Your task to perform on an android device: turn off picture-in-picture Image 0: 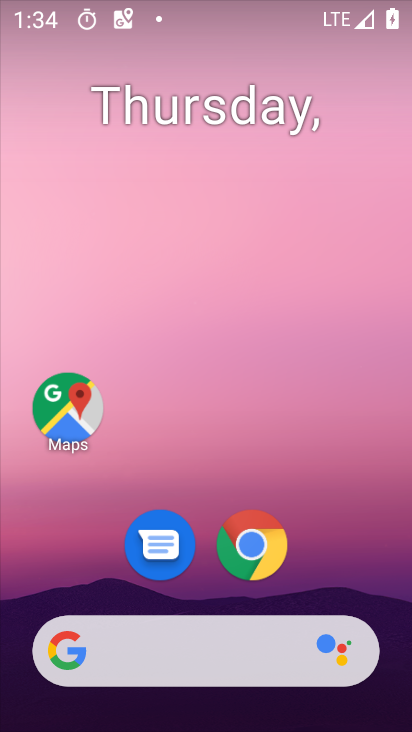
Step 0: drag from (213, 639) to (325, 1)
Your task to perform on an android device: turn off picture-in-picture Image 1: 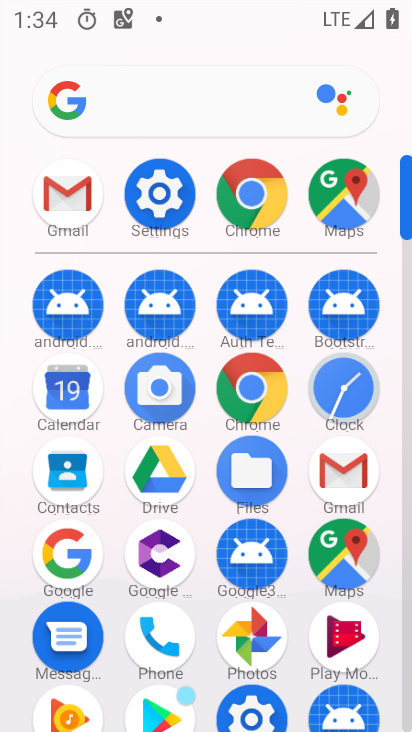
Step 1: click (168, 194)
Your task to perform on an android device: turn off picture-in-picture Image 2: 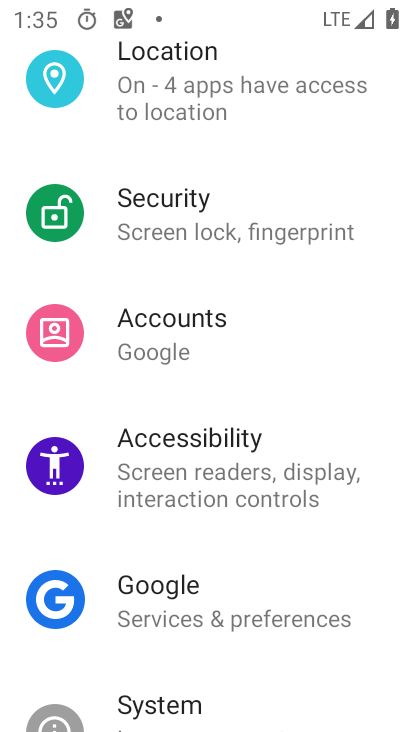
Step 2: drag from (254, 171) to (236, 731)
Your task to perform on an android device: turn off picture-in-picture Image 3: 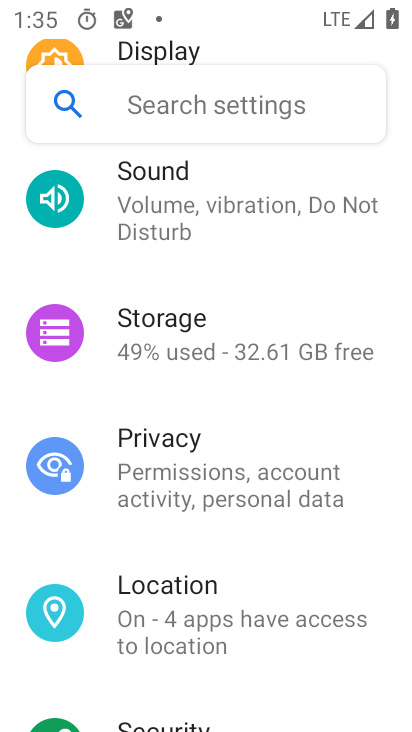
Step 3: drag from (241, 327) to (253, 674)
Your task to perform on an android device: turn off picture-in-picture Image 4: 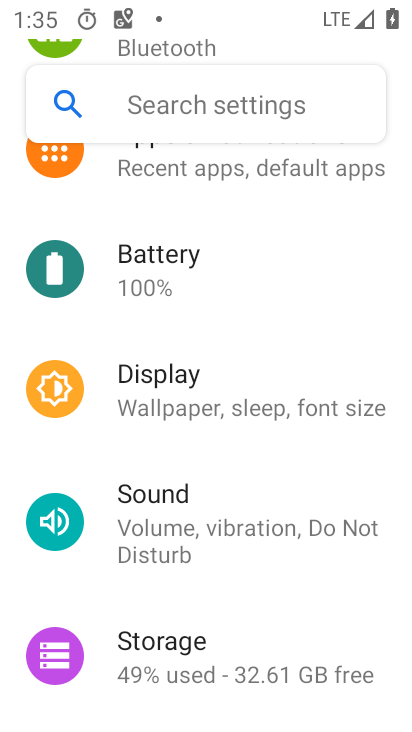
Step 4: drag from (238, 310) to (249, 666)
Your task to perform on an android device: turn off picture-in-picture Image 5: 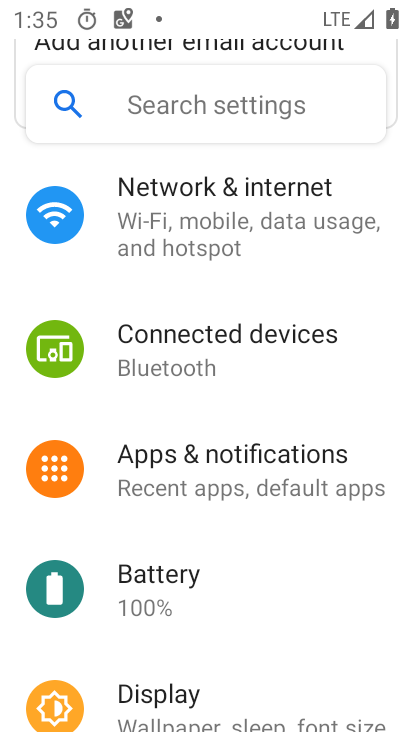
Step 5: click (237, 460)
Your task to perform on an android device: turn off picture-in-picture Image 6: 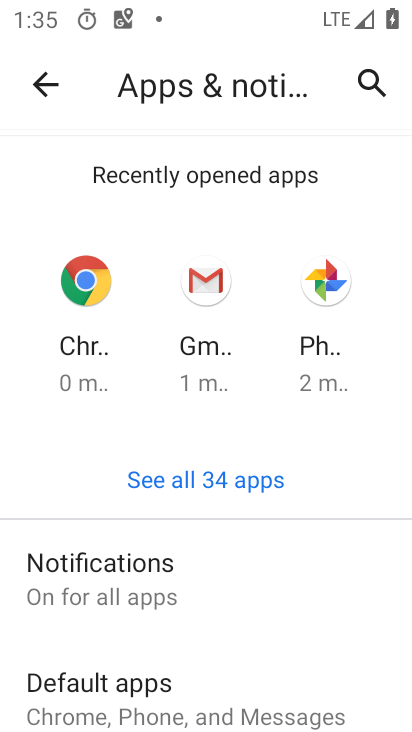
Step 6: drag from (262, 613) to (280, 141)
Your task to perform on an android device: turn off picture-in-picture Image 7: 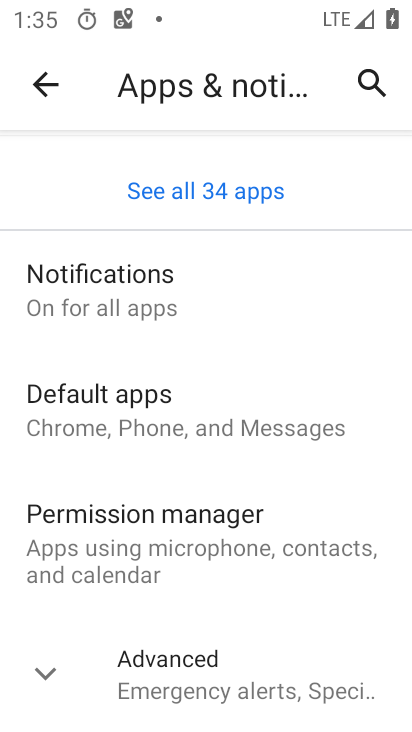
Step 7: click (199, 662)
Your task to perform on an android device: turn off picture-in-picture Image 8: 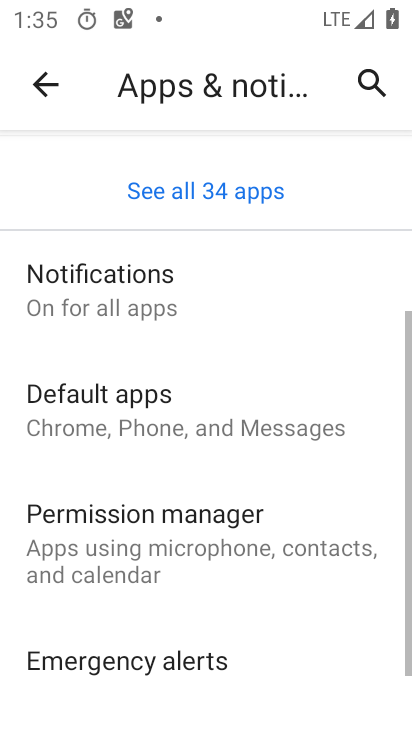
Step 8: drag from (197, 669) to (271, 165)
Your task to perform on an android device: turn off picture-in-picture Image 9: 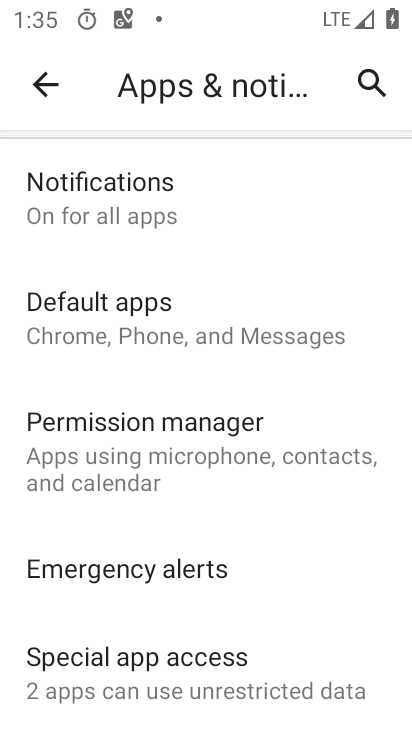
Step 9: click (118, 664)
Your task to perform on an android device: turn off picture-in-picture Image 10: 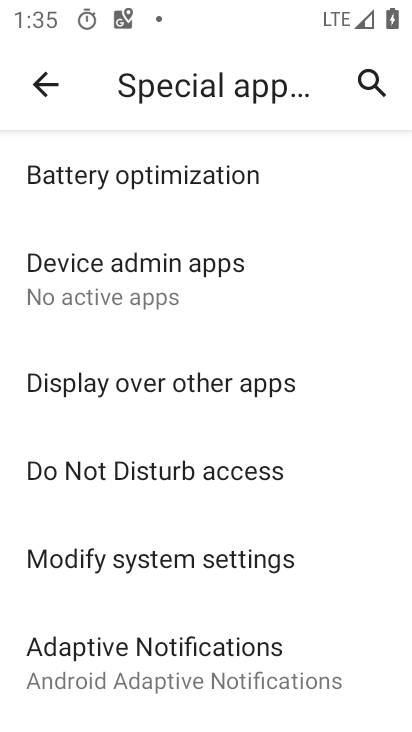
Step 10: drag from (288, 636) to (360, 121)
Your task to perform on an android device: turn off picture-in-picture Image 11: 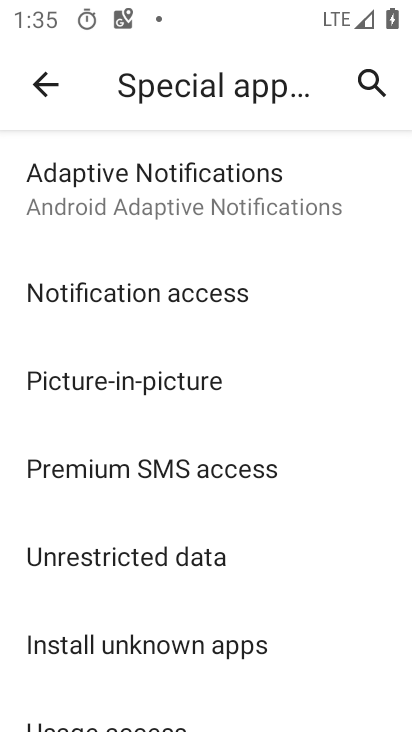
Step 11: click (162, 385)
Your task to perform on an android device: turn off picture-in-picture Image 12: 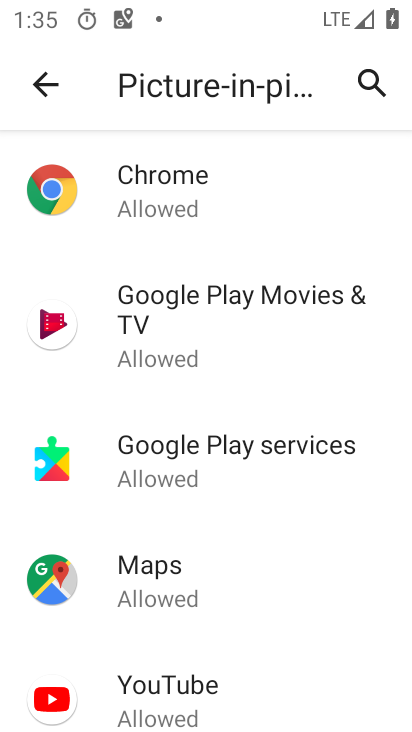
Step 12: click (161, 185)
Your task to perform on an android device: turn off picture-in-picture Image 13: 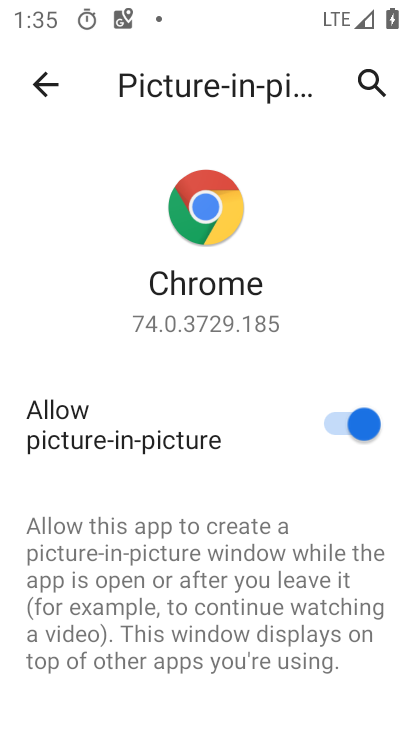
Step 13: click (341, 417)
Your task to perform on an android device: turn off picture-in-picture Image 14: 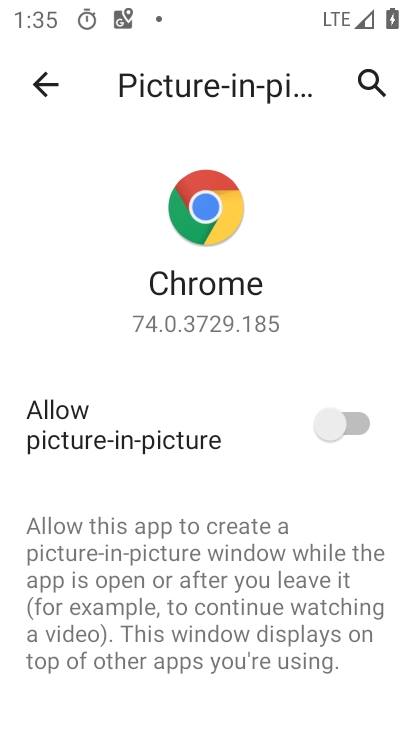
Step 14: press back button
Your task to perform on an android device: turn off picture-in-picture Image 15: 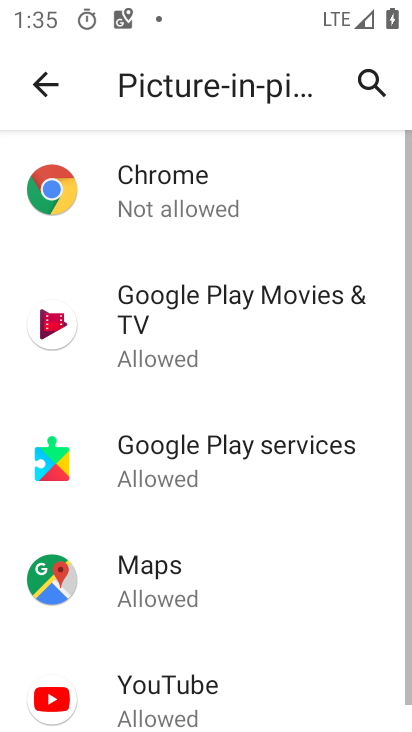
Step 15: click (204, 321)
Your task to perform on an android device: turn off picture-in-picture Image 16: 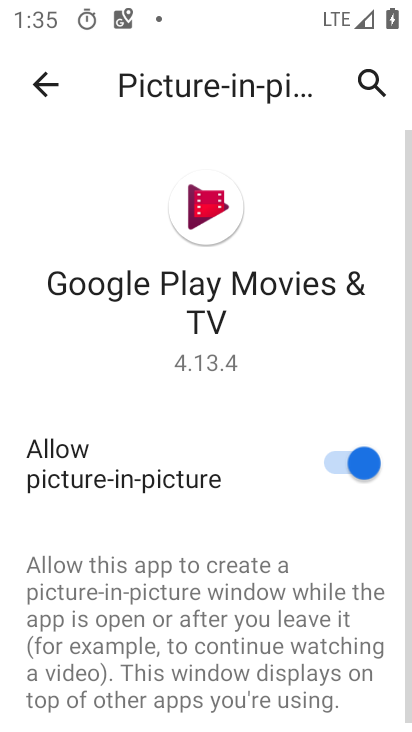
Step 16: click (338, 455)
Your task to perform on an android device: turn off picture-in-picture Image 17: 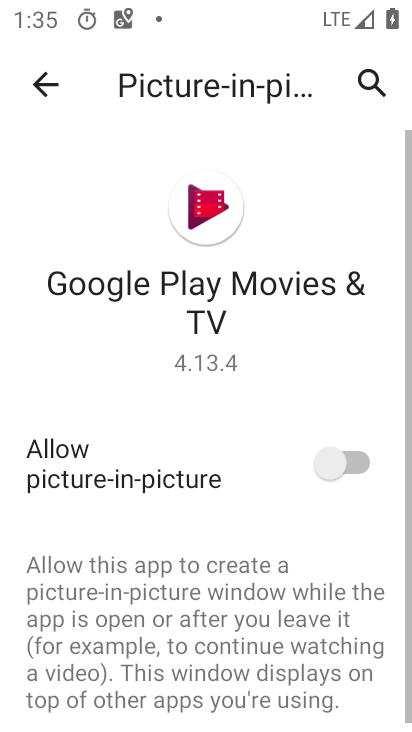
Step 17: press back button
Your task to perform on an android device: turn off picture-in-picture Image 18: 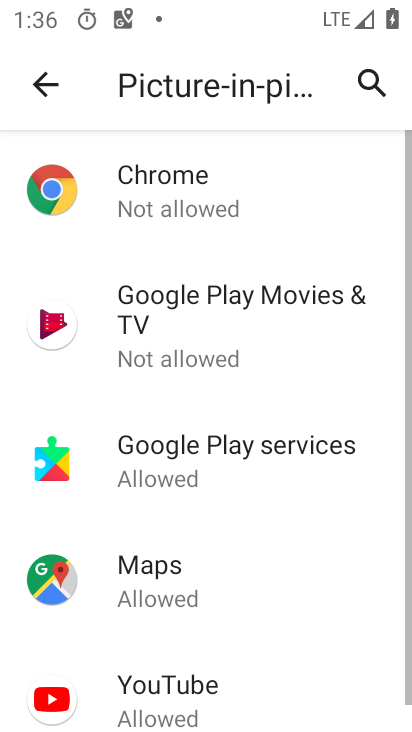
Step 18: click (238, 464)
Your task to perform on an android device: turn off picture-in-picture Image 19: 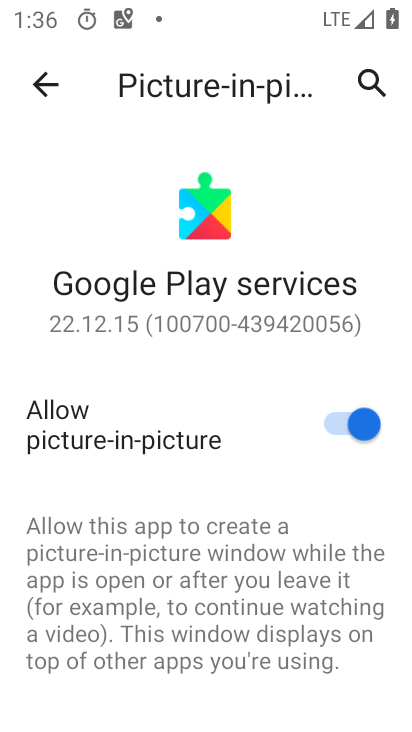
Step 19: click (342, 422)
Your task to perform on an android device: turn off picture-in-picture Image 20: 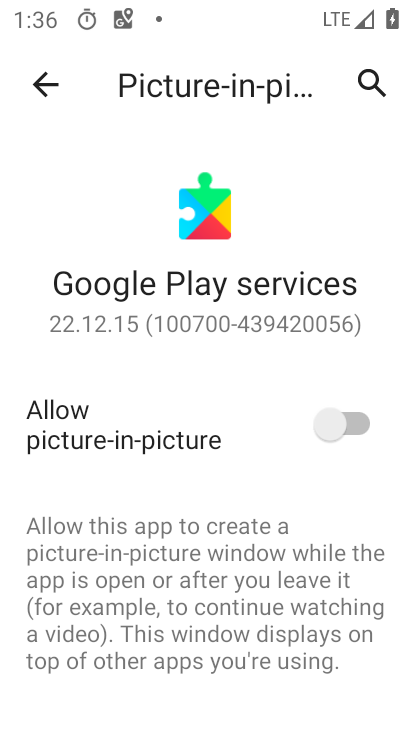
Step 20: press back button
Your task to perform on an android device: turn off picture-in-picture Image 21: 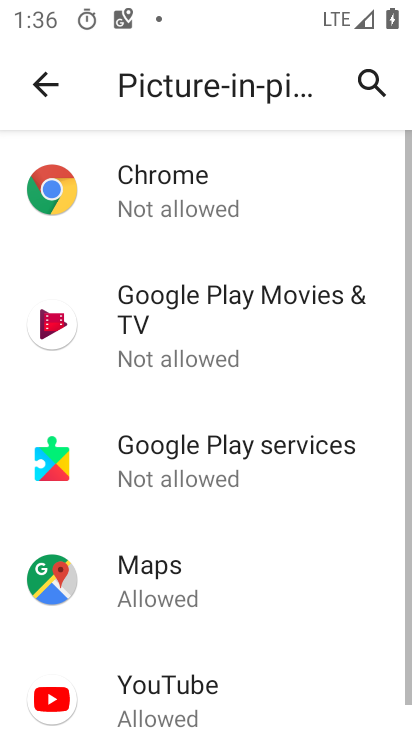
Step 21: click (255, 590)
Your task to perform on an android device: turn off picture-in-picture Image 22: 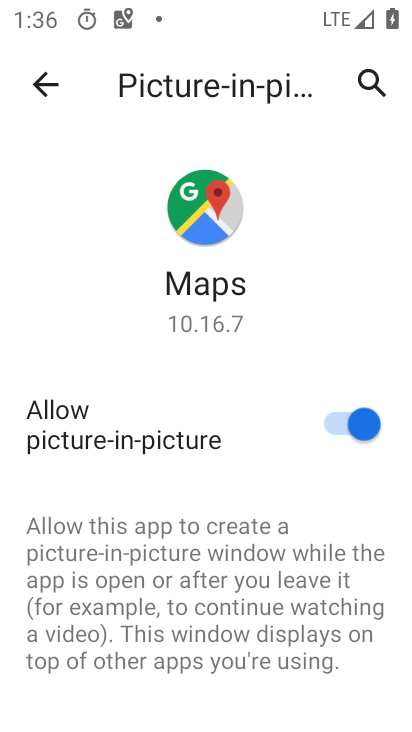
Step 22: click (334, 420)
Your task to perform on an android device: turn off picture-in-picture Image 23: 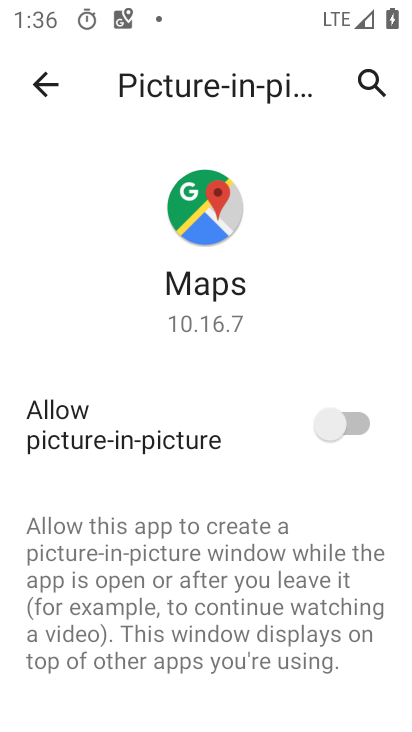
Step 23: press back button
Your task to perform on an android device: turn off picture-in-picture Image 24: 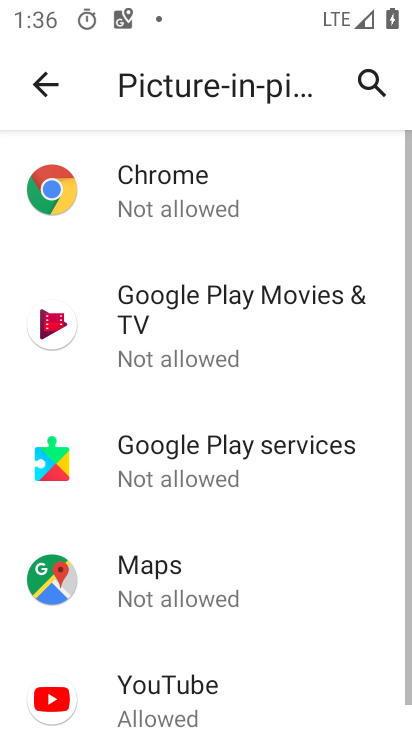
Step 24: drag from (291, 655) to (356, 209)
Your task to perform on an android device: turn off picture-in-picture Image 25: 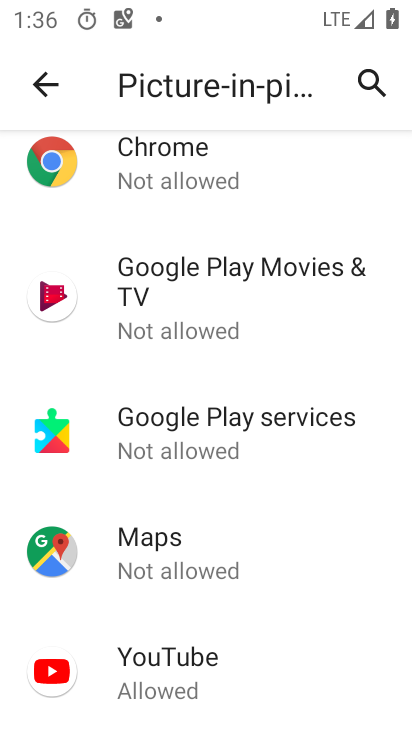
Step 25: click (224, 684)
Your task to perform on an android device: turn off picture-in-picture Image 26: 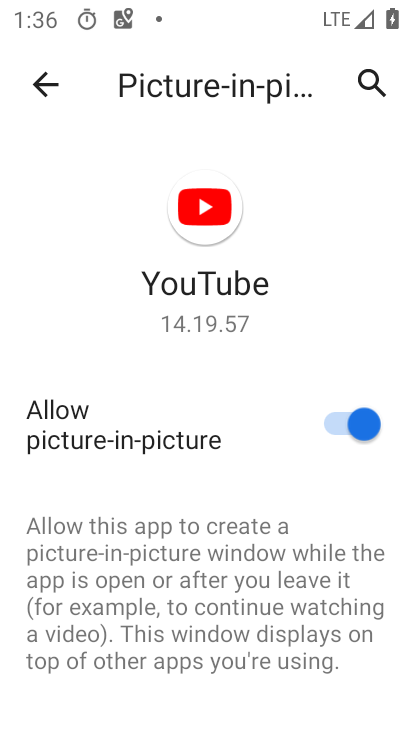
Step 26: click (333, 415)
Your task to perform on an android device: turn off picture-in-picture Image 27: 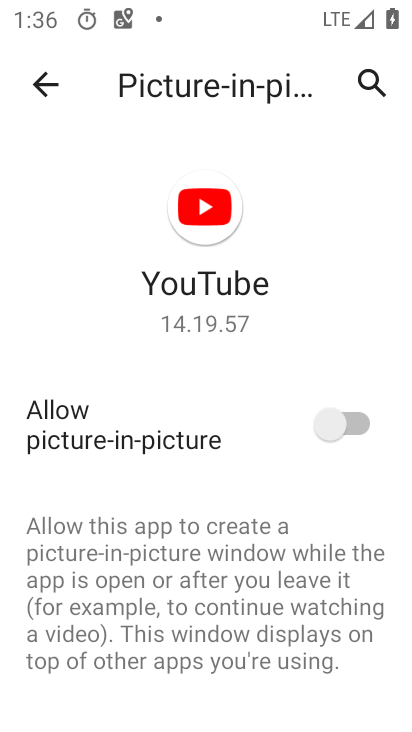
Step 27: task complete